Your task to perform on an android device: turn on the 24-hour format for clock Image 0: 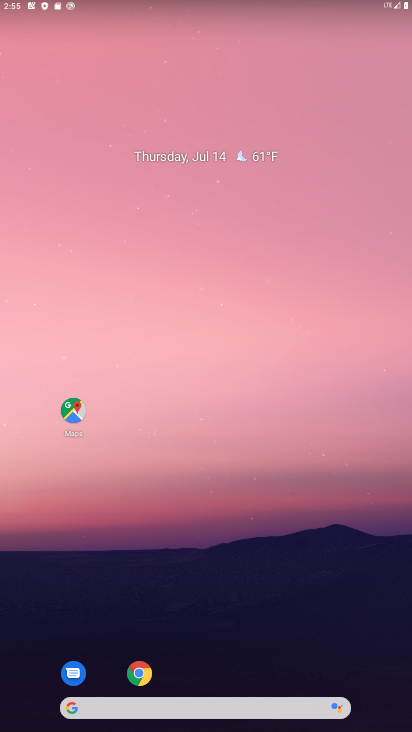
Step 0: drag from (181, 682) to (167, 265)
Your task to perform on an android device: turn on the 24-hour format for clock Image 1: 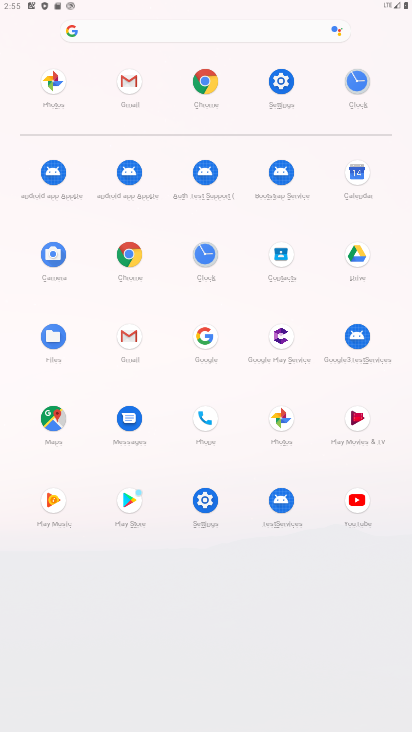
Step 1: click (353, 90)
Your task to perform on an android device: turn on the 24-hour format for clock Image 2: 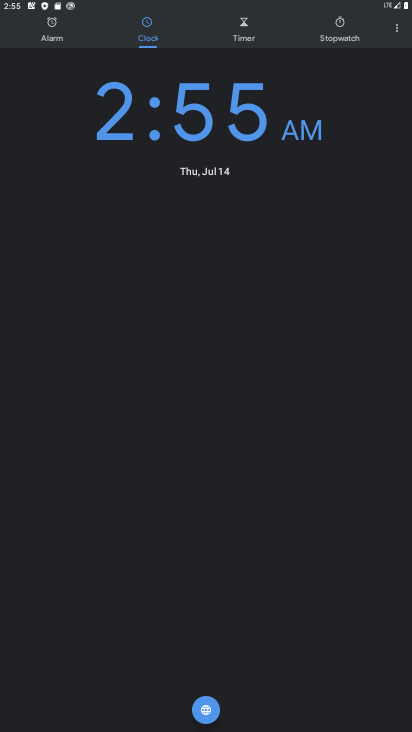
Step 2: click (389, 21)
Your task to perform on an android device: turn on the 24-hour format for clock Image 3: 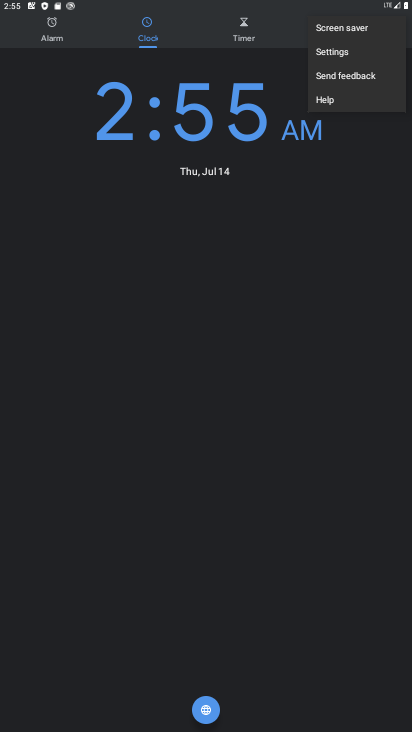
Step 3: click (363, 53)
Your task to perform on an android device: turn on the 24-hour format for clock Image 4: 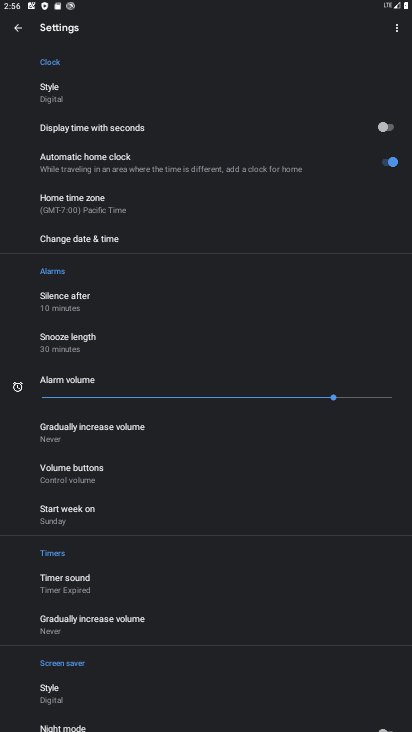
Step 4: click (146, 232)
Your task to perform on an android device: turn on the 24-hour format for clock Image 5: 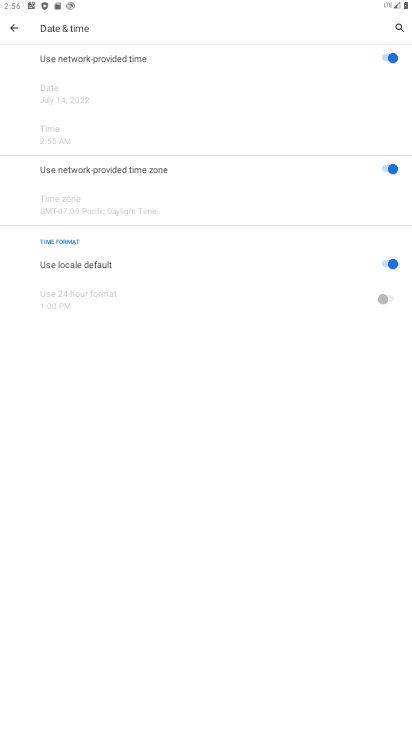
Step 5: click (390, 265)
Your task to perform on an android device: turn on the 24-hour format for clock Image 6: 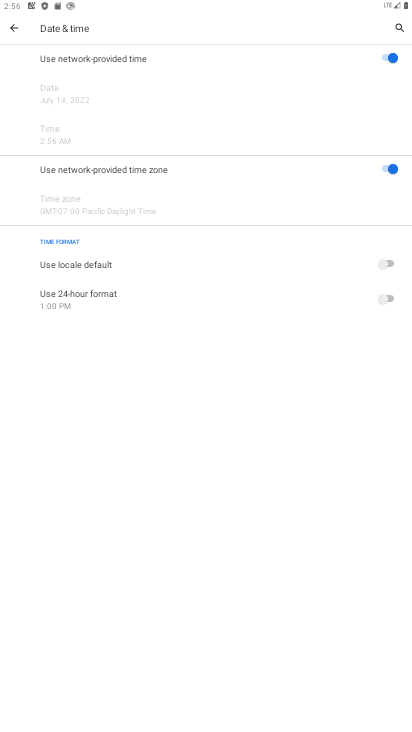
Step 6: click (383, 298)
Your task to perform on an android device: turn on the 24-hour format for clock Image 7: 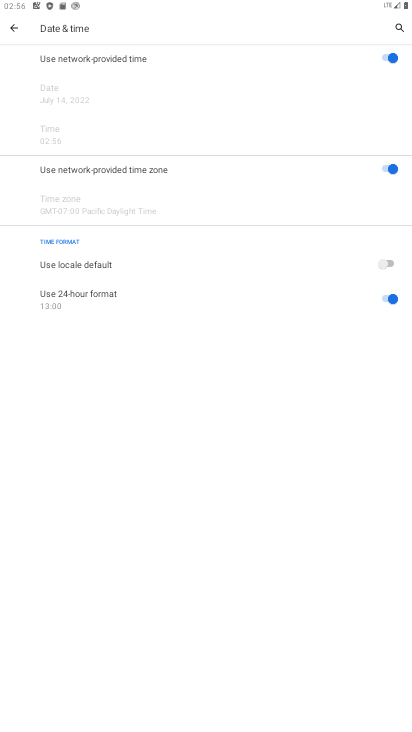
Step 7: task complete